Your task to perform on an android device: check battery use Image 0: 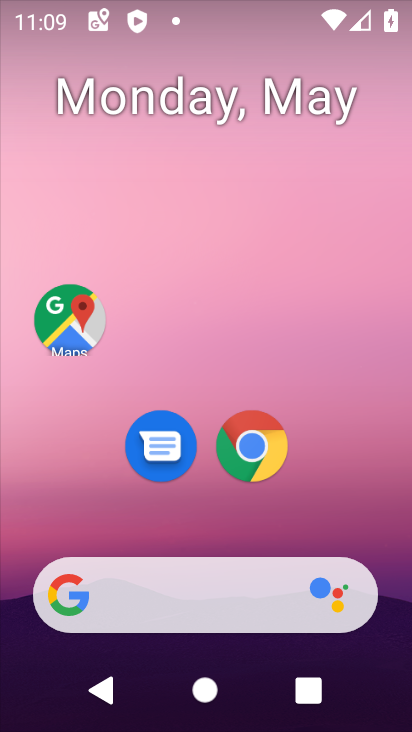
Step 0: drag from (336, 510) to (12, 184)
Your task to perform on an android device: check battery use Image 1: 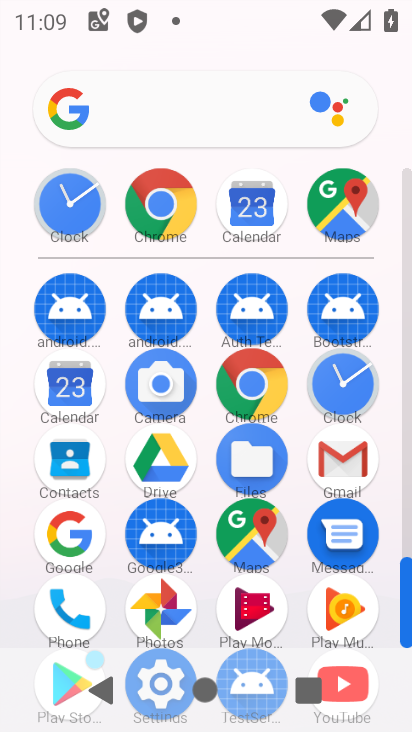
Step 1: drag from (396, 507) to (338, 108)
Your task to perform on an android device: check battery use Image 2: 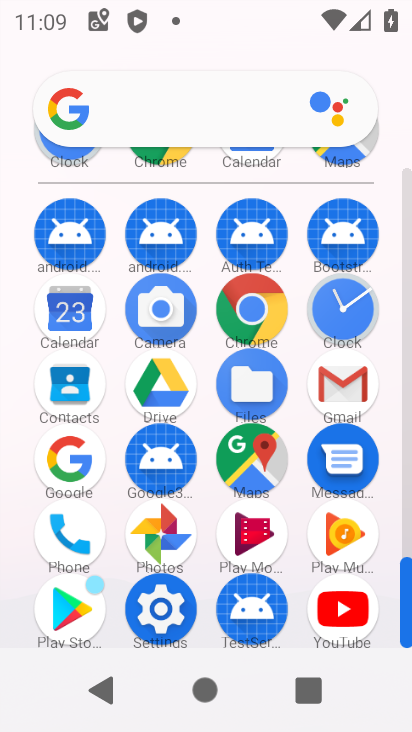
Step 2: click (157, 621)
Your task to perform on an android device: check battery use Image 3: 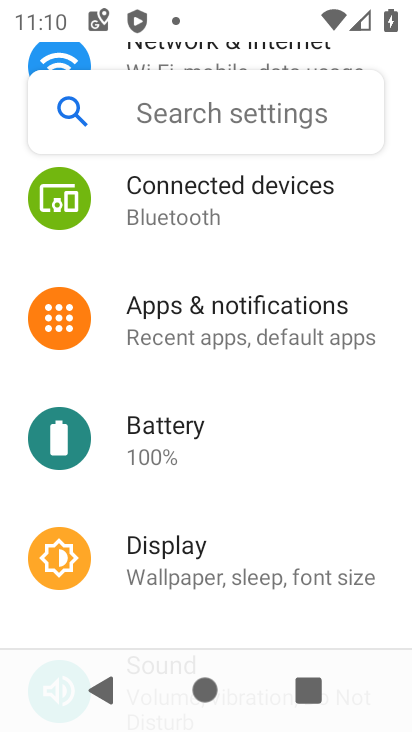
Step 3: click (174, 451)
Your task to perform on an android device: check battery use Image 4: 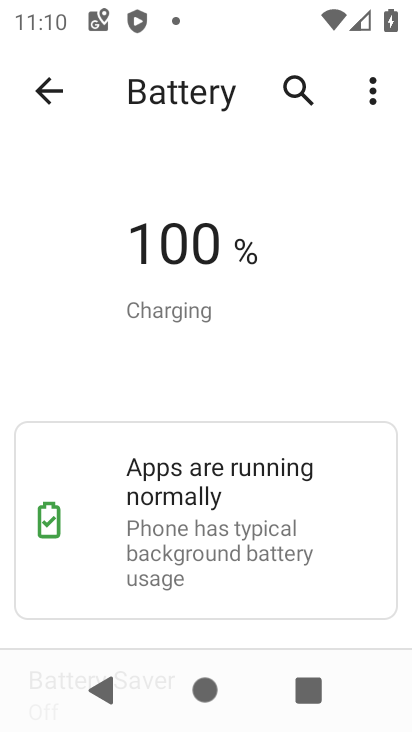
Step 4: task complete